Your task to perform on an android device: Open settings on Google Maps Image 0: 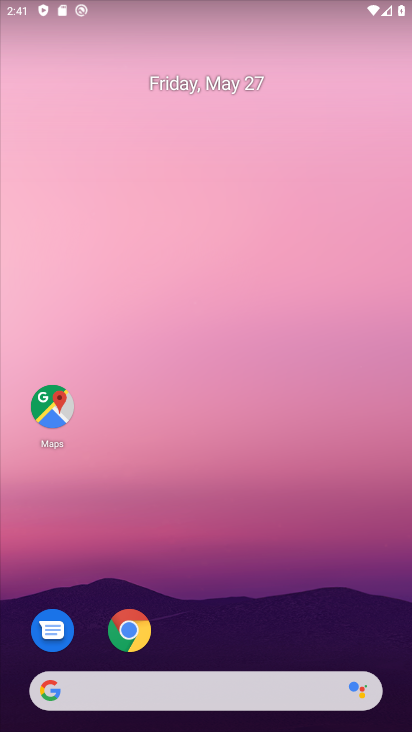
Step 0: drag from (199, 668) to (179, 153)
Your task to perform on an android device: Open settings on Google Maps Image 1: 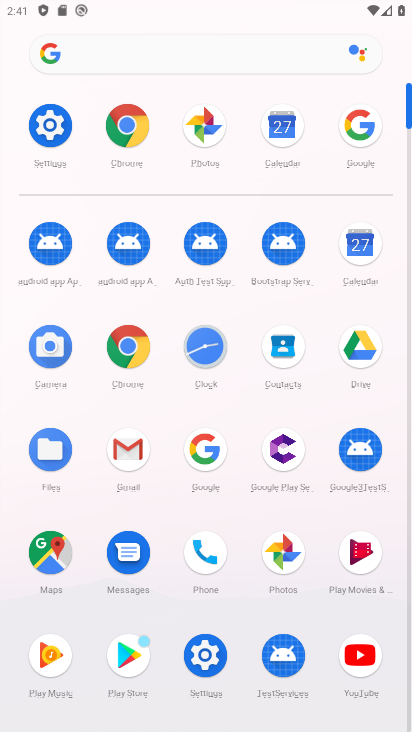
Step 1: click (23, 532)
Your task to perform on an android device: Open settings on Google Maps Image 2: 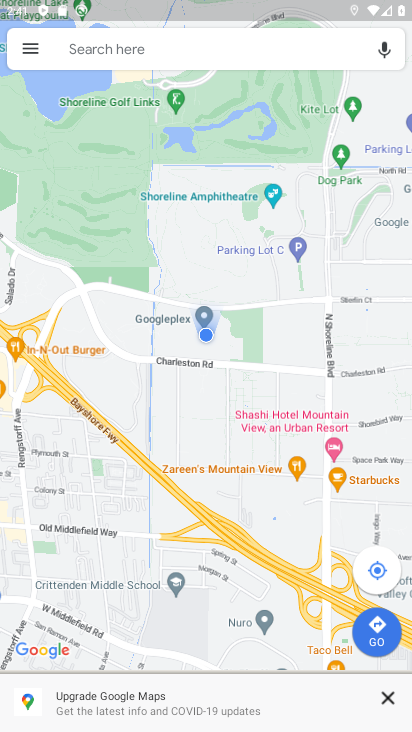
Step 2: click (38, 54)
Your task to perform on an android device: Open settings on Google Maps Image 3: 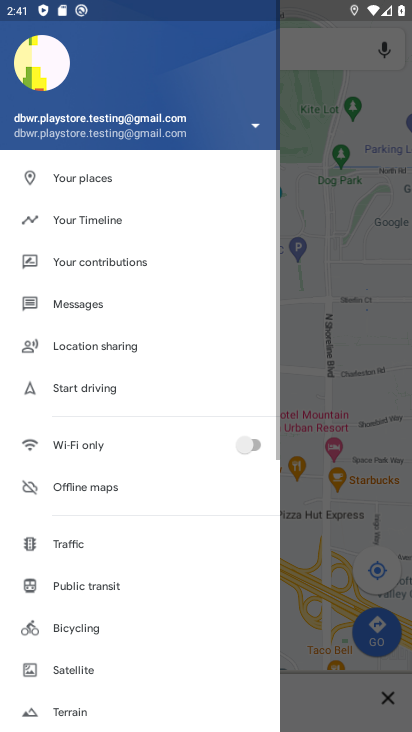
Step 3: drag from (94, 627) to (55, 190)
Your task to perform on an android device: Open settings on Google Maps Image 4: 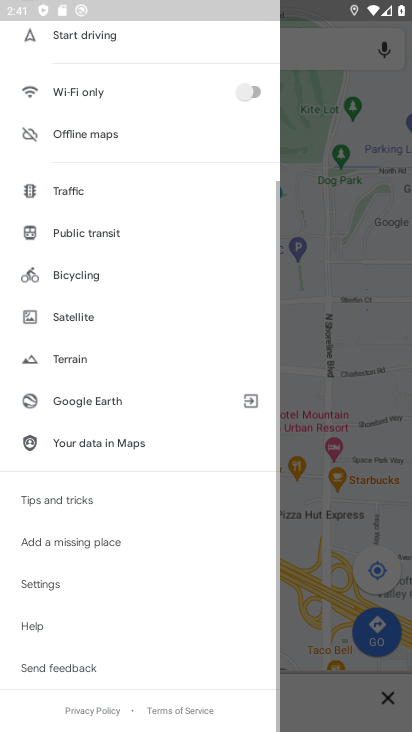
Step 4: click (51, 582)
Your task to perform on an android device: Open settings on Google Maps Image 5: 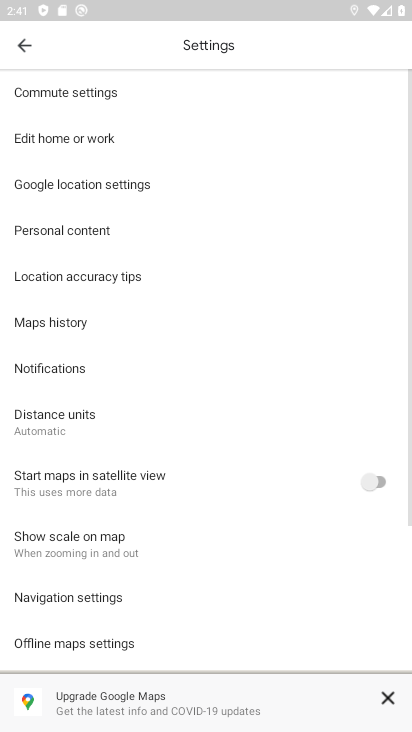
Step 5: task complete